Your task to perform on an android device: open chrome privacy settings Image 0: 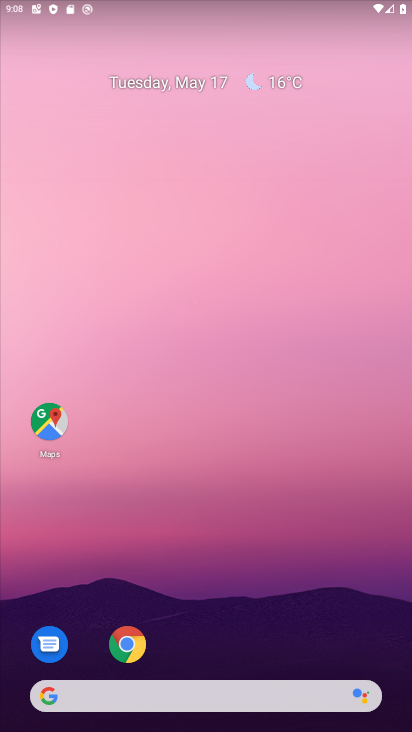
Step 0: click (129, 647)
Your task to perform on an android device: open chrome privacy settings Image 1: 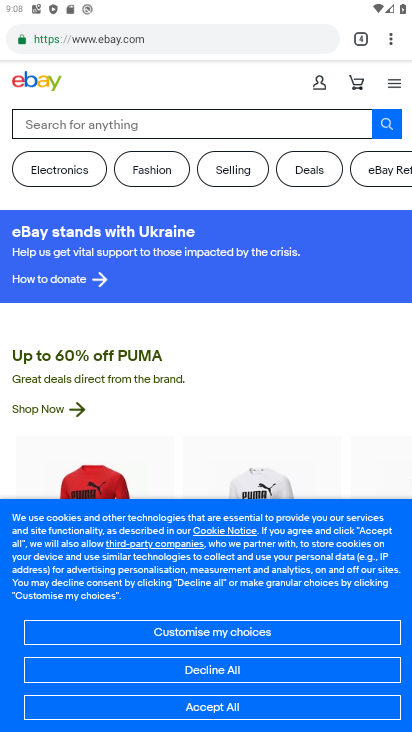
Step 1: drag from (387, 35) to (258, 477)
Your task to perform on an android device: open chrome privacy settings Image 2: 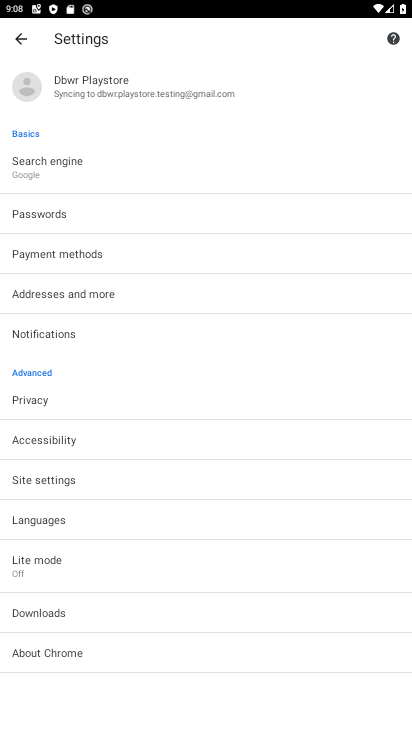
Step 2: click (47, 392)
Your task to perform on an android device: open chrome privacy settings Image 3: 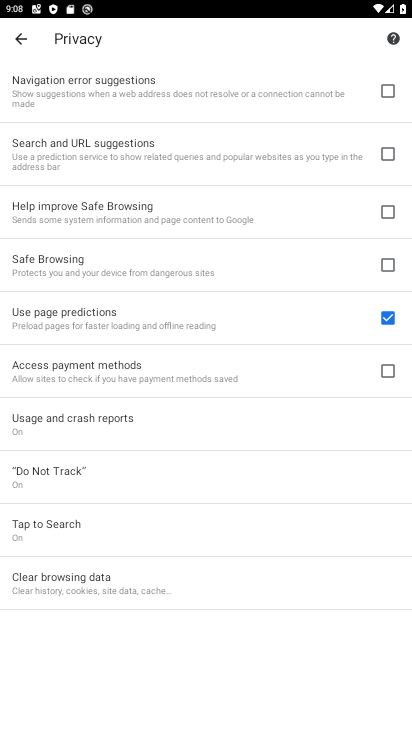
Step 3: task complete